Your task to perform on an android device: Go to ESPN.com Image 0: 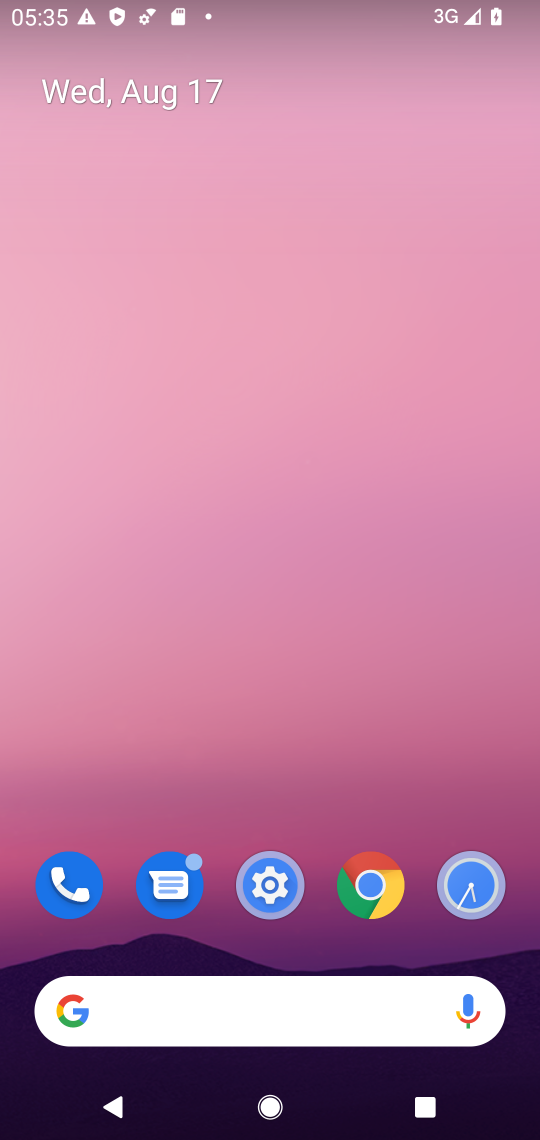
Step 0: drag from (361, 702) to (523, 30)
Your task to perform on an android device: Go to ESPN.com Image 1: 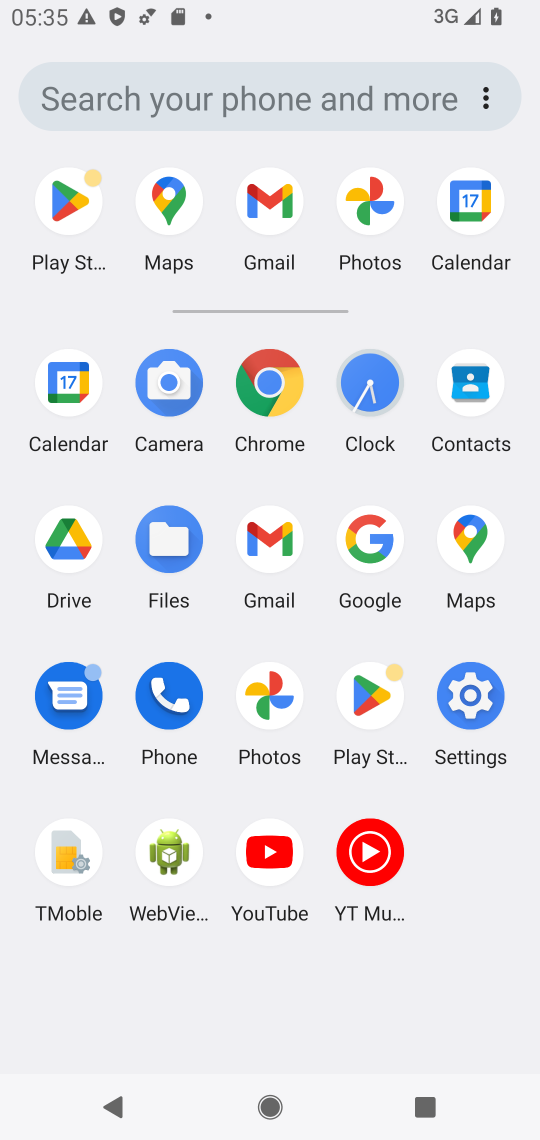
Step 1: click (269, 380)
Your task to perform on an android device: Go to ESPN.com Image 2: 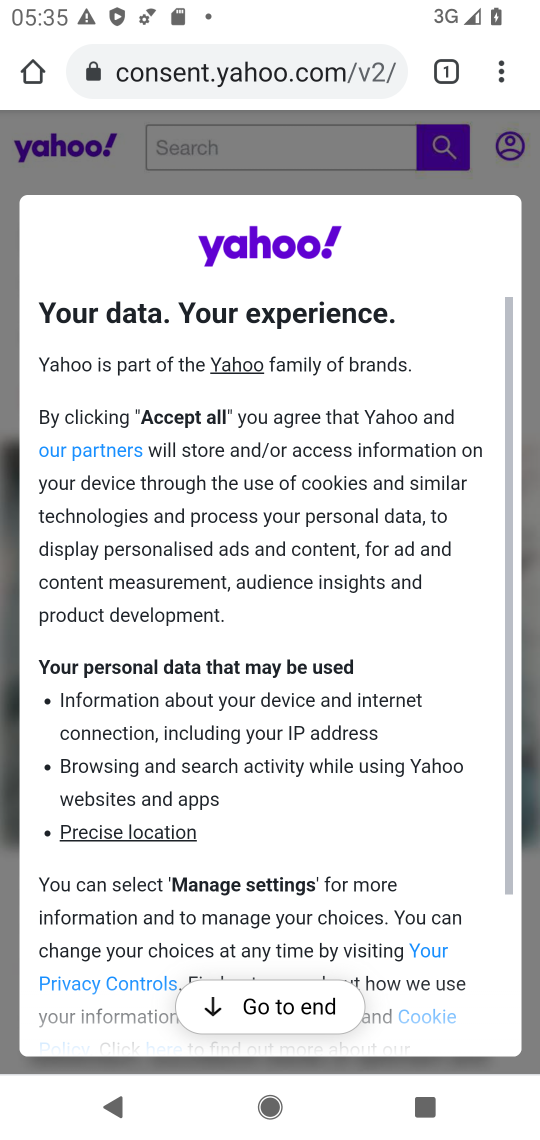
Step 2: click (318, 76)
Your task to perform on an android device: Go to ESPN.com Image 3: 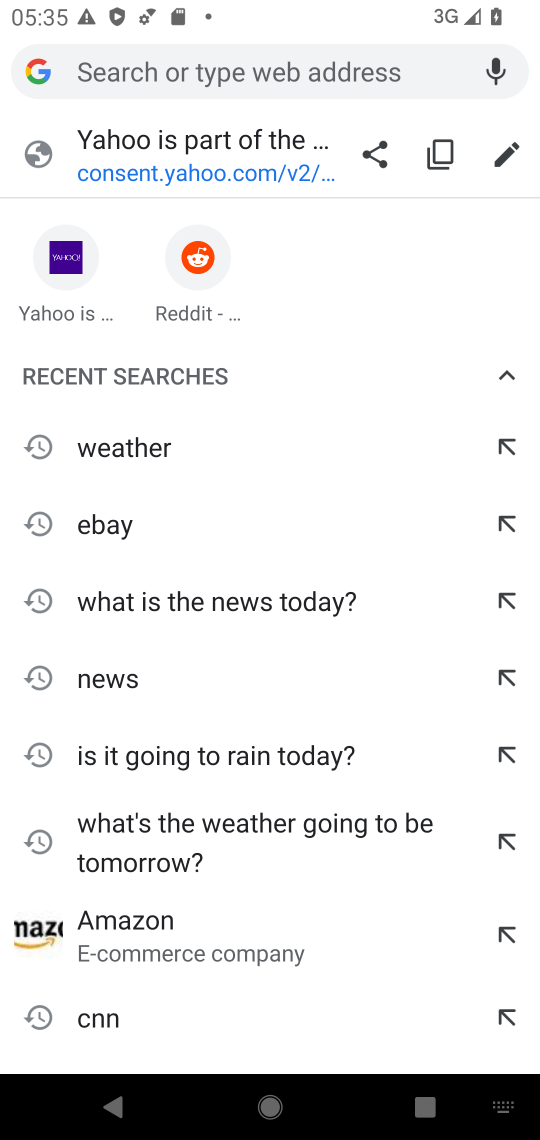
Step 3: type "espn.com"
Your task to perform on an android device: Go to ESPN.com Image 4: 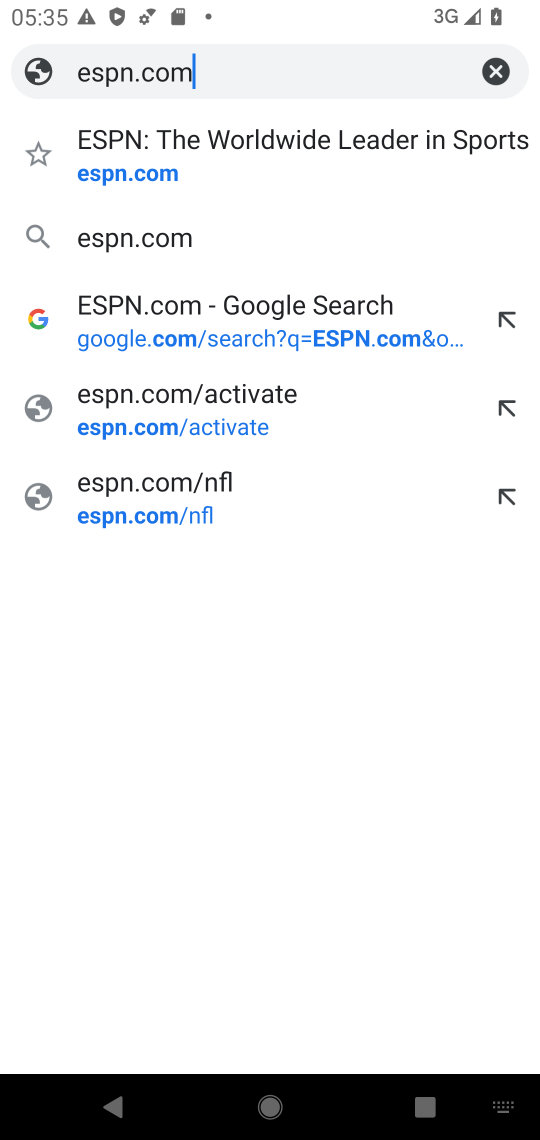
Step 4: click (142, 172)
Your task to perform on an android device: Go to ESPN.com Image 5: 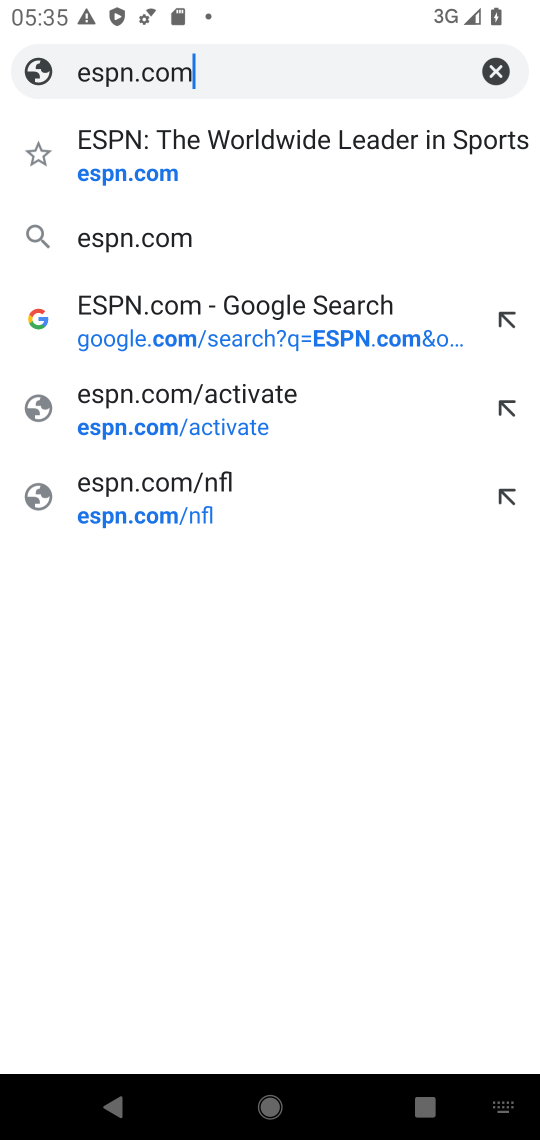
Step 5: click (142, 178)
Your task to perform on an android device: Go to ESPN.com Image 6: 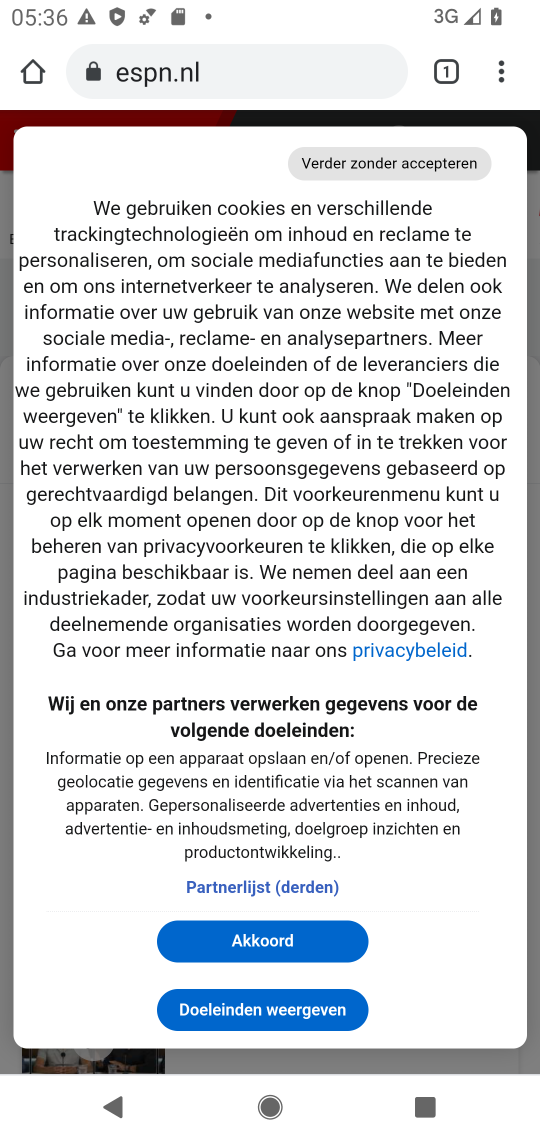
Step 6: task complete